Your task to perform on an android device: delete location history Image 0: 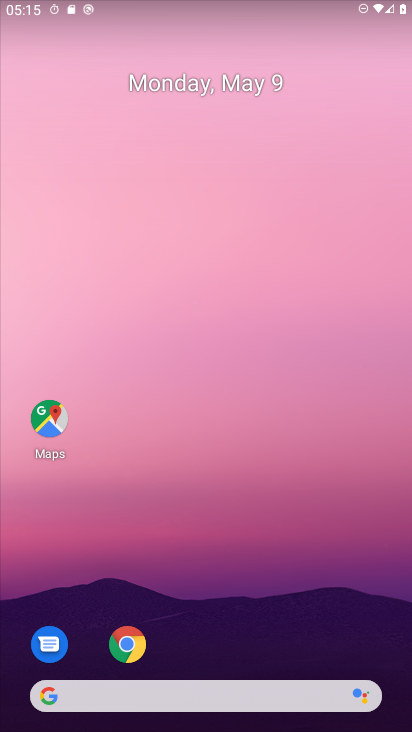
Step 0: drag from (226, 612) to (195, 57)
Your task to perform on an android device: delete location history Image 1: 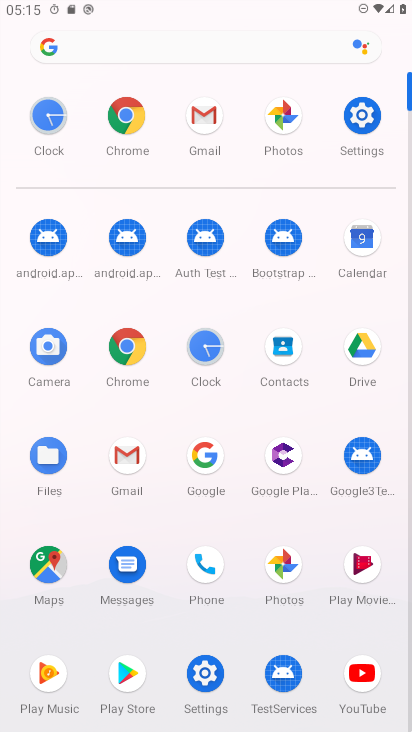
Step 1: click (45, 565)
Your task to perform on an android device: delete location history Image 2: 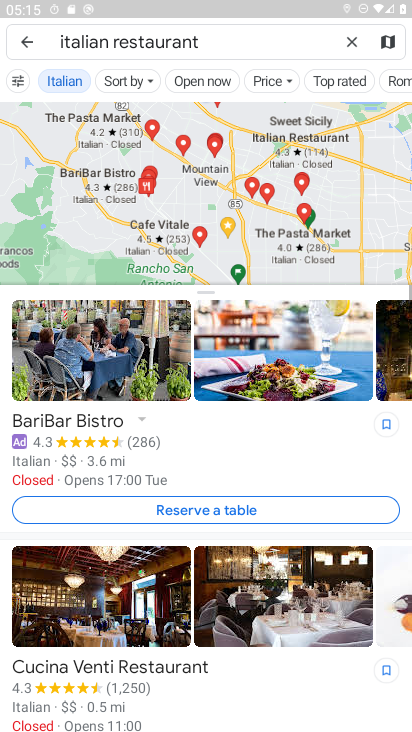
Step 2: click (348, 41)
Your task to perform on an android device: delete location history Image 3: 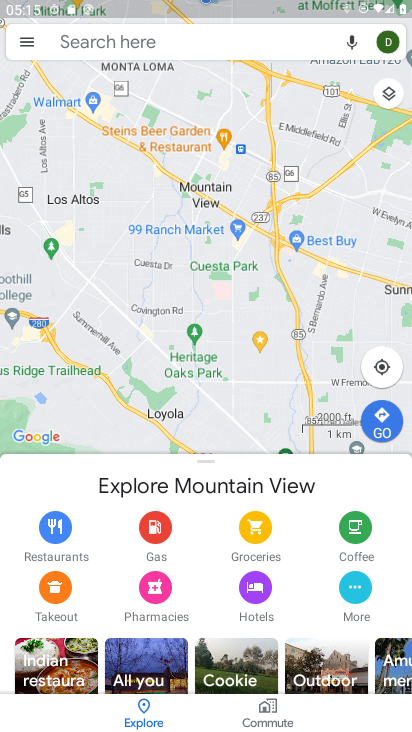
Step 3: click (26, 46)
Your task to perform on an android device: delete location history Image 4: 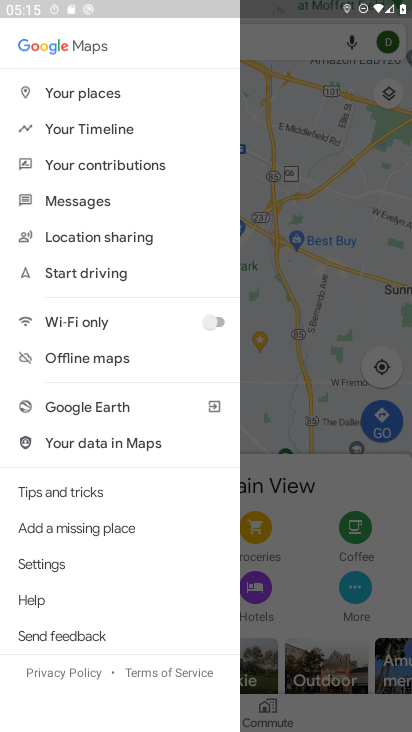
Step 4: click (47, 563)
Your task to perform on an android device: delete location history Image 5: 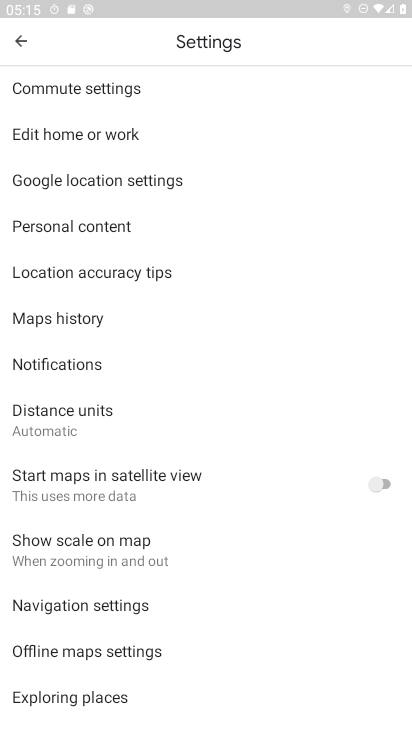
Step 5: click (59, 226)
Your task to perform on an android device: delete location history Image 6: 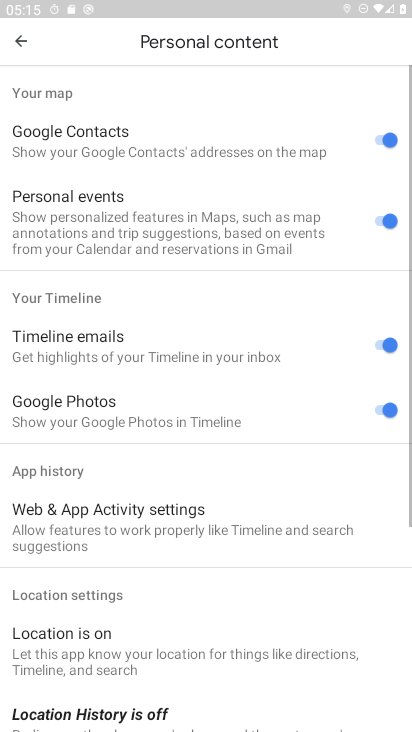
Step 6: drag from (127, 630) to (219, 364)
Your task to perform on an android device: delete location history Image 7: 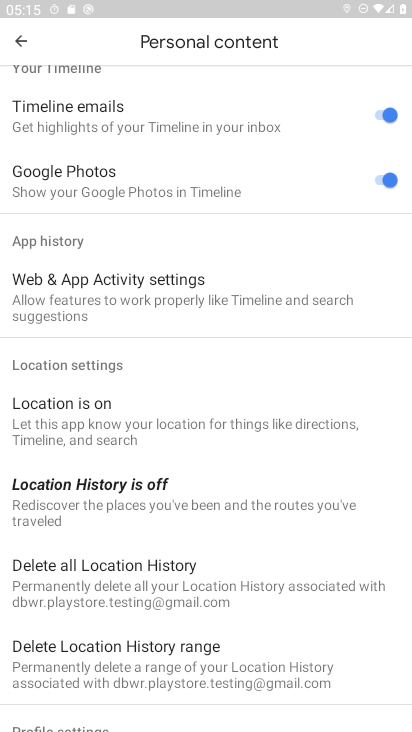
Step 7: click (144, 572)
Your task to perform on an android device: delete location history Image 8: 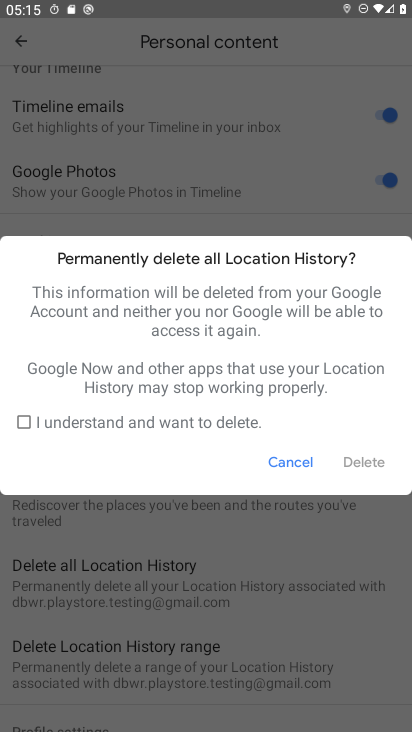
Step 8: click (16, 414)
Your task to perform on an android device: delete location history Image 9: 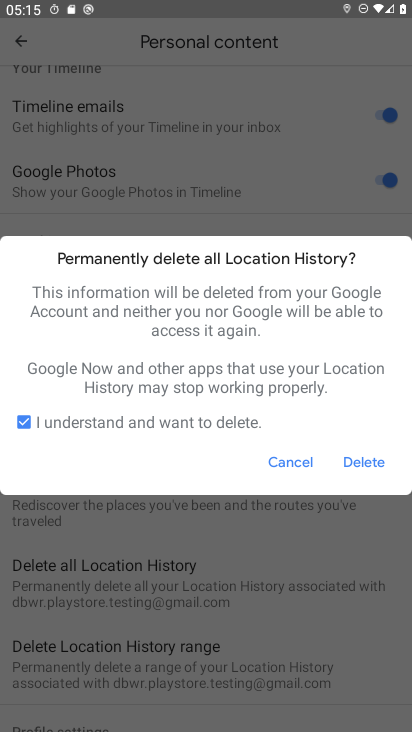
Step 9: click (357, 469)
Your task to perform on an android device: delete location history Image 10: 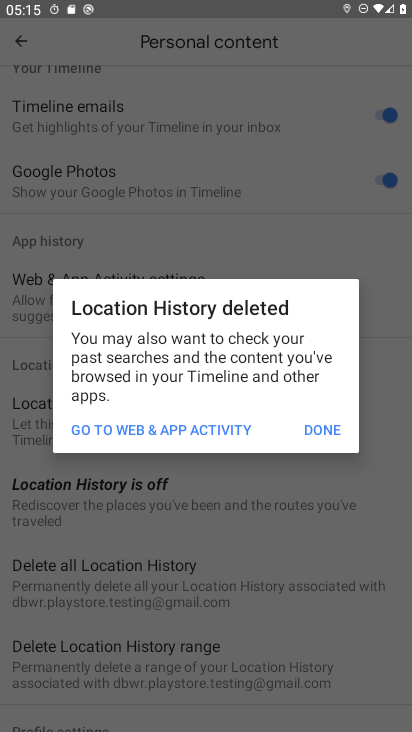
Step 10: click (323, 425)
Your task to perform on an android device: delete location history Image 11: 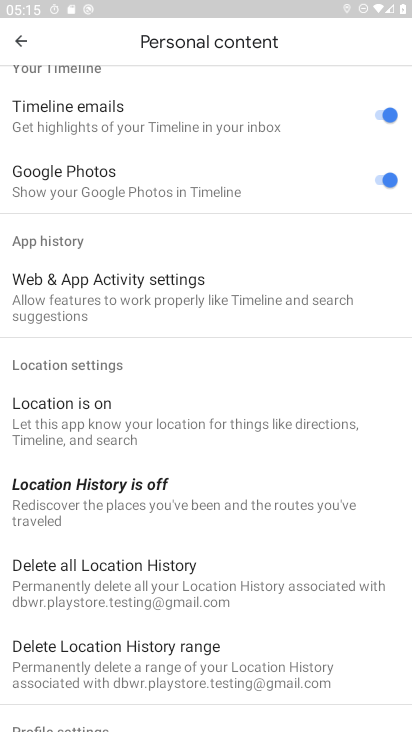
Step 11: task complete